Your task to perform on an android device: Go to Wikipedia Image 0: 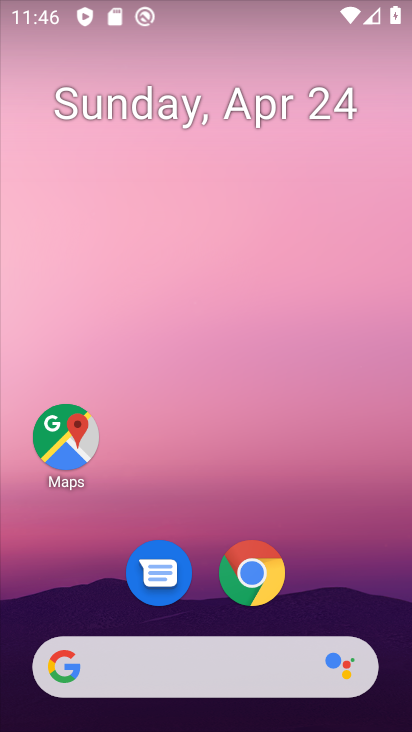
Step 0: drag from (363, 562) to (379, 131)
Your task to perform on an android device: Go to Wikipedia Image 1: 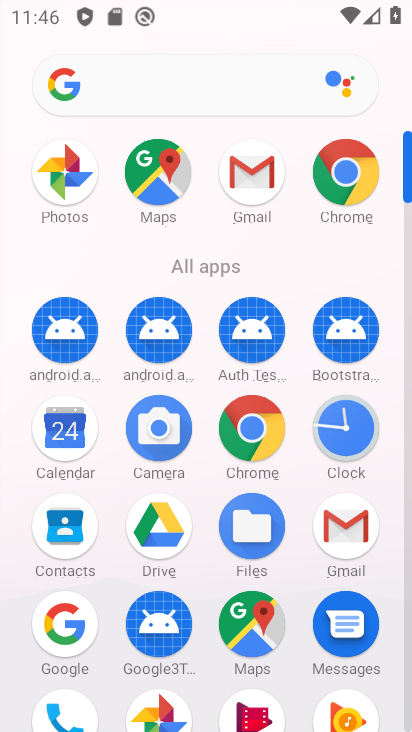
Step 1: drag from (393, 551) to (385, 141)
Your task to perform on an android device: Go to Wikipedia Image 2: 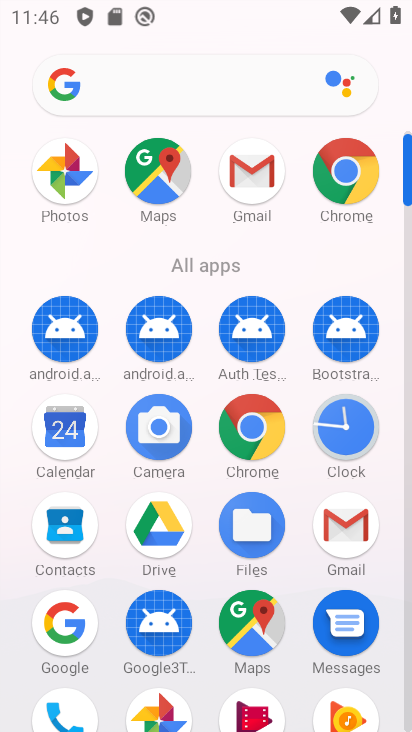
Step 2: drag from (391, 522) to (383, 193)
Your task to perform on an android device: Go to Wikipedia Image 3: 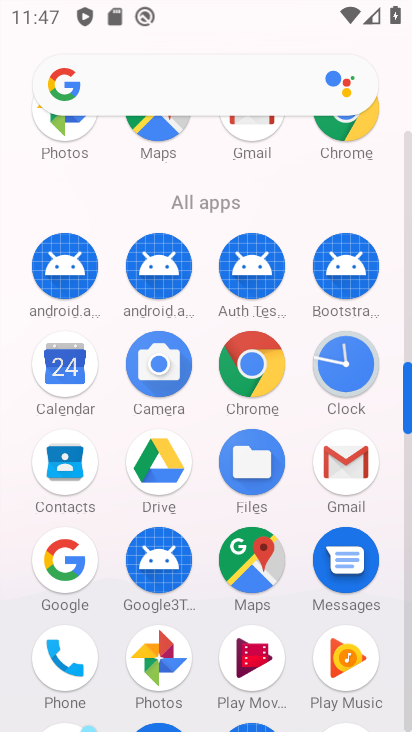
Step 3: drag from (394, 541) to (408, 193)
Your task to perform on an android device: Go to Wikipedia Image 4: 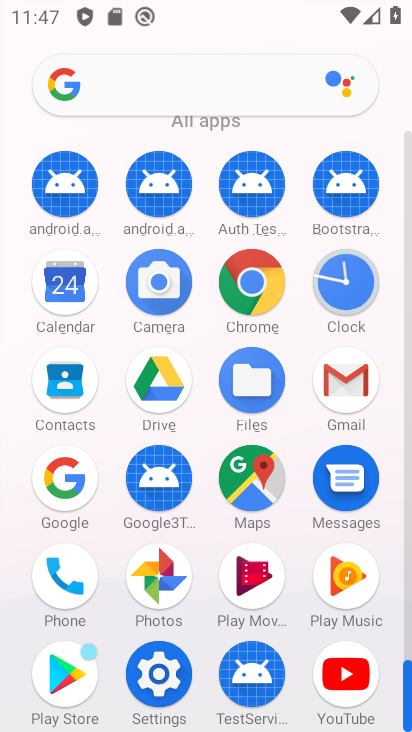
Step 4: click (170, 672)
Your task to perform on an android device: Go to Wikipedia Image 5: 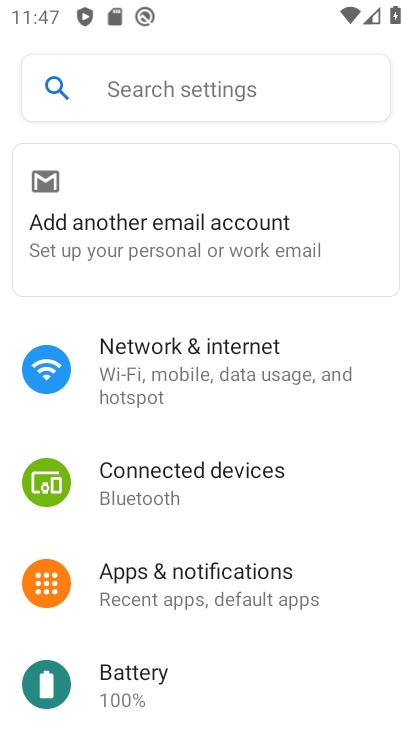
Step 5: press home button
Your task to perform on an android device: Go to Wikipedia Image 6: 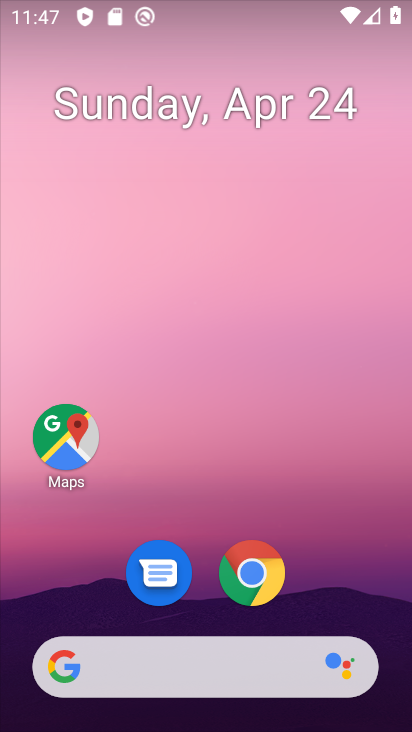
Step 6: click (275, 551)
Your task to perform on an android device: Go to Wikipedia Image 7: 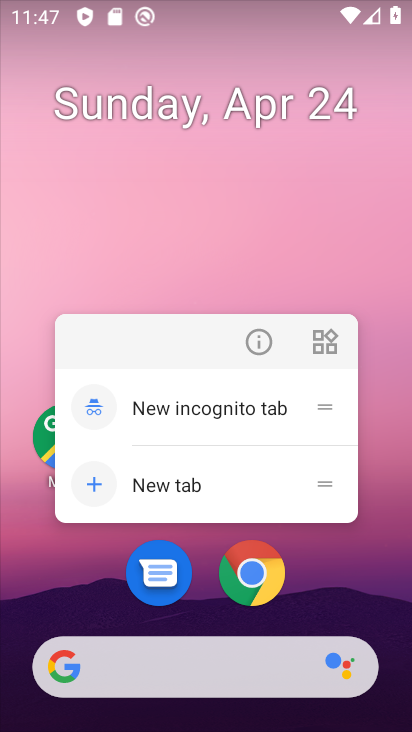
Step 7: click (275, 553)
Your task to perform on an android device: Go to Wikipedia Image 8: 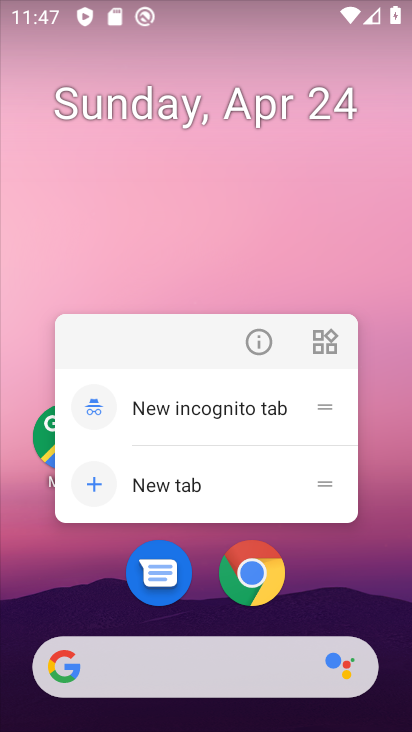
Step 8: click (279, 557)
Your task to perform on an android device: Go to Wikipedia Image 9: 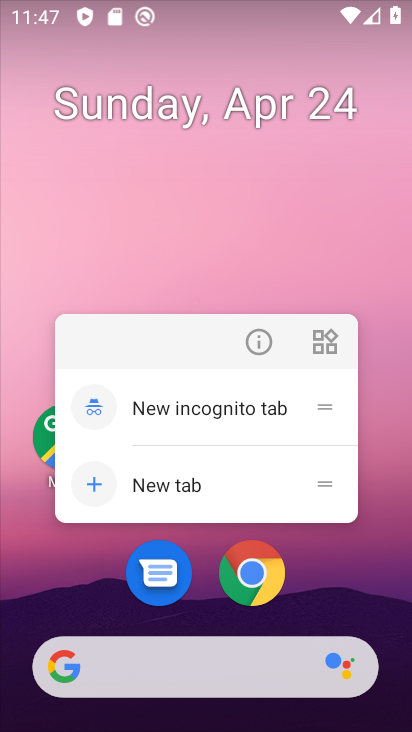
Step 9: click (256, 594)
Your task to perform on an android device: Go to Wikipedia Image 10: 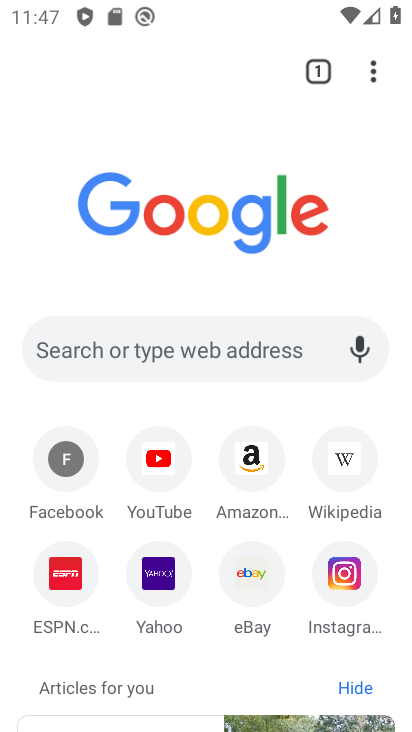
Step 10: click (352, 463)
Your task to perform on an android device: Go to Wikipedia Image 11: 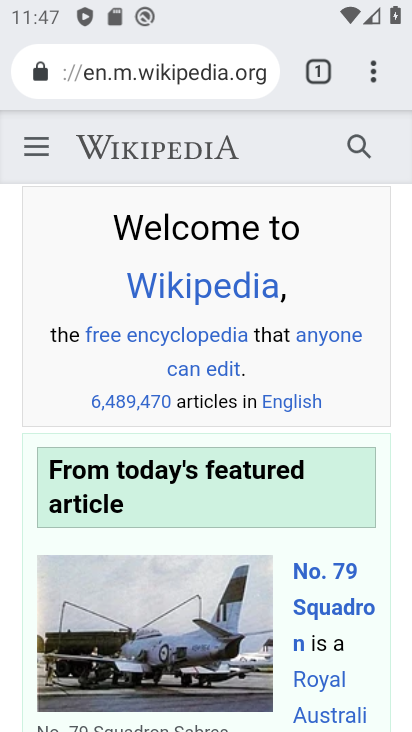
Step 11: task complete